Your task to perform on an android device: change keyboard looks Image 0: 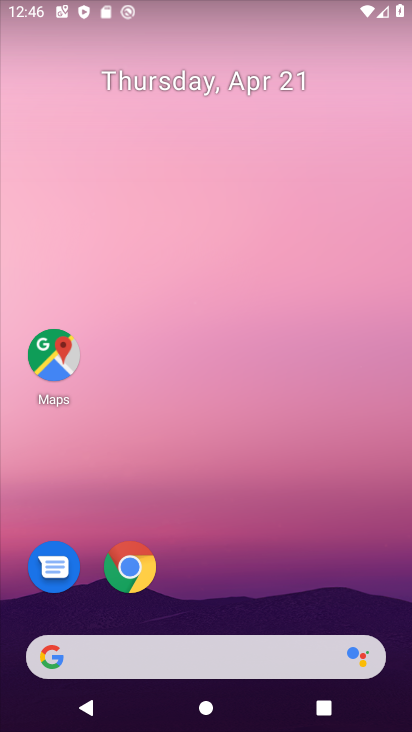
Step 0: drag from (250, 580) to (214, 142)
Your task to perform on an android device: change keyboard looks Image 1: 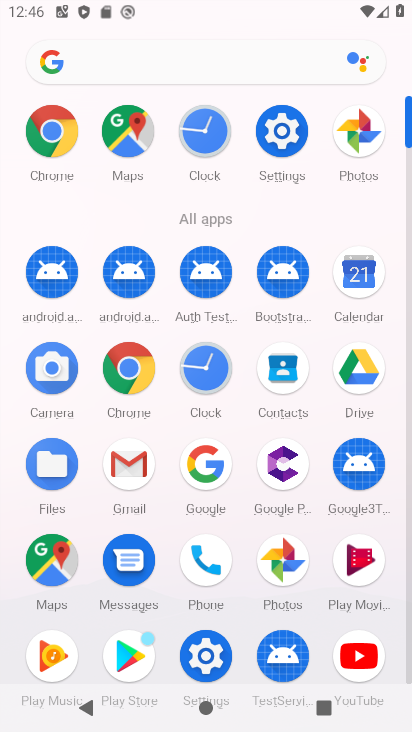
Step 1: click (281, 122)
Your task to perform on an android device: change keyboard looks Image 2: 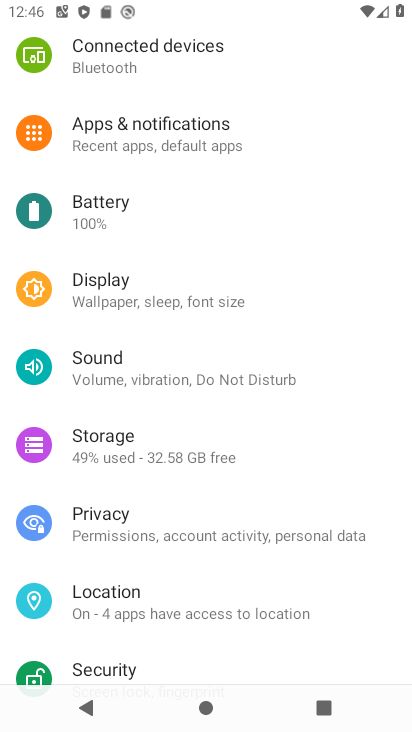
Step 2: drag from (217, 467) to (182, 102)
Your task to perform on an android device: change keyboard looks Image 3: 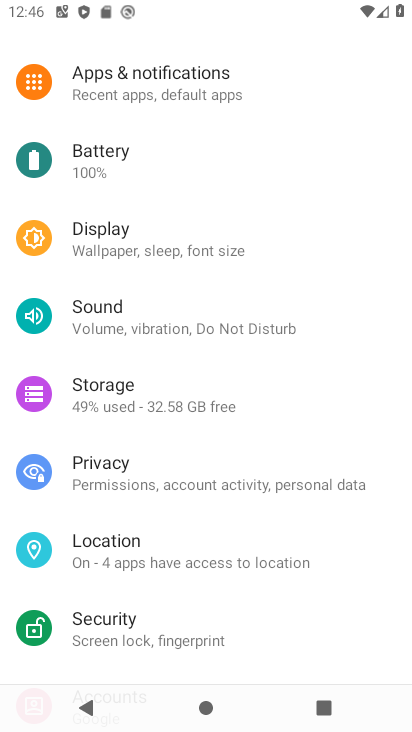
Step 3: drag from (182, 365) to (178, 115)
Your task to perform on an android device: change keyboard looks Image 4: 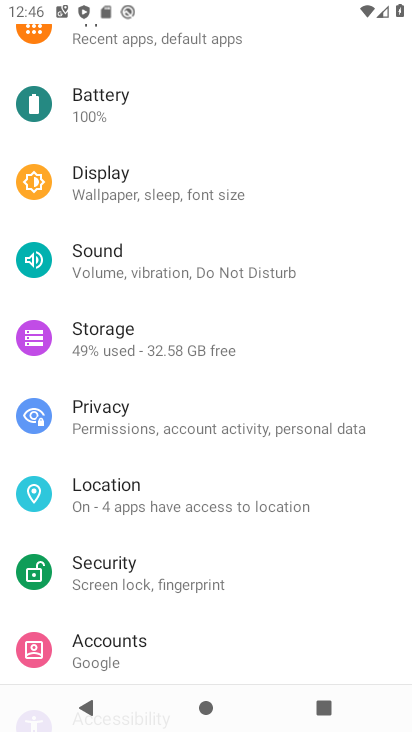
Step 4: drag from (204, 578) to (191, 154)
Your task to perform on an android device: change keyboard looks Image 5: 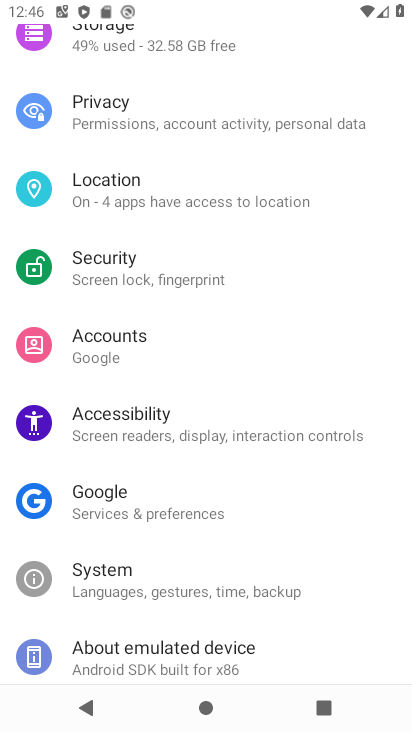
Step 5: drag from (175, 617) to (159, 287)
Your task to perform on an android device: change keyboard looks Image 6: 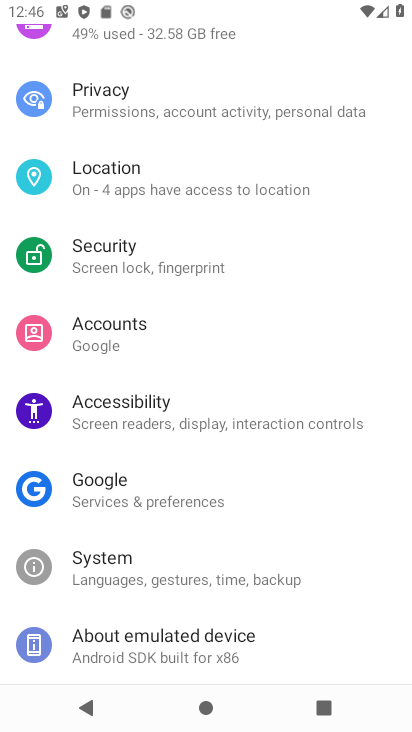
Step 6: click (133, 570)
Your task to perform on an android device: change keyboard looks Image 7: 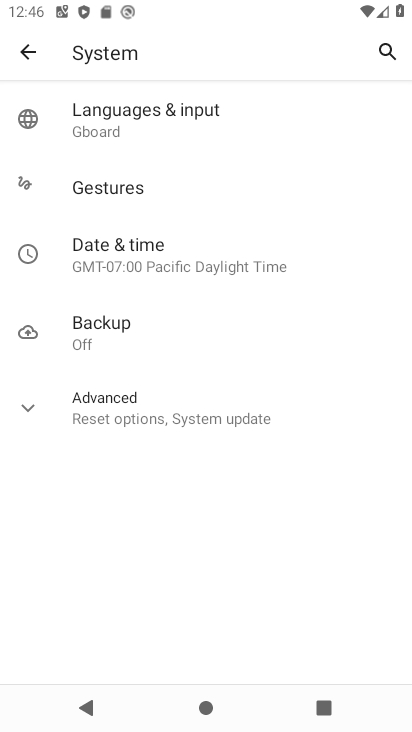
Step 7: click (159, 114)
Your task to perform on an android device: change keyboard looks Image 8: 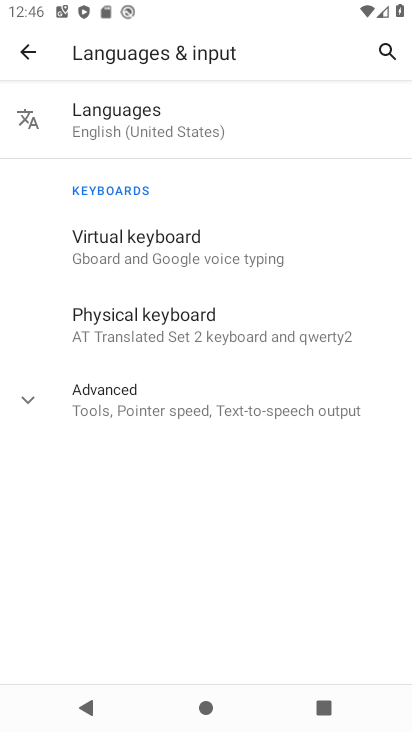
Step 8: click (113, 253)
Your task to perform on an android device: change keyboard looks Image 9: 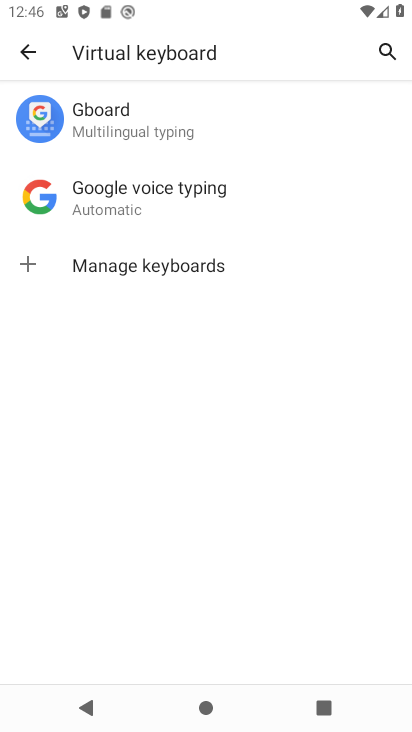
Step 9: click (85, 110)
Your task to perform on an android device: change keyboard looks Image 10: 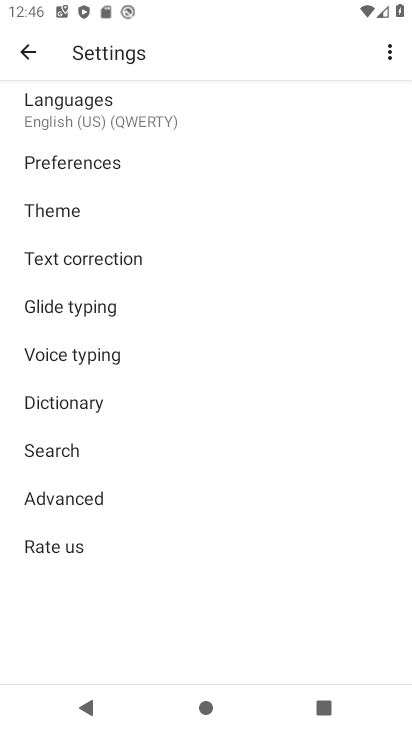
Step 10: click (81, 209)
Your task to perform on an android device: change keyboard looks Image 11: 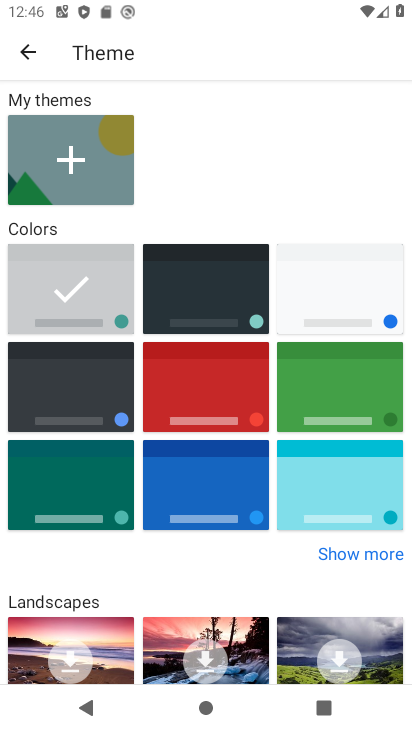
Step 11: click (261, 388)
Your task to perform on an android device: change keyboard looks Image 12: 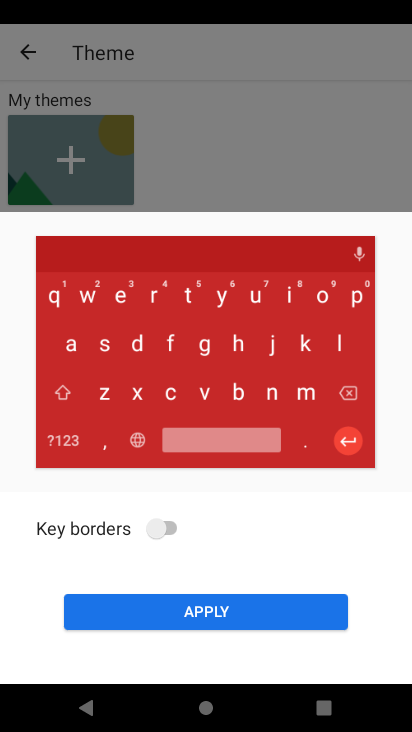
Step 12: click (188, 593)
Your task to perform on an android device: change keyboard looks Image 13: 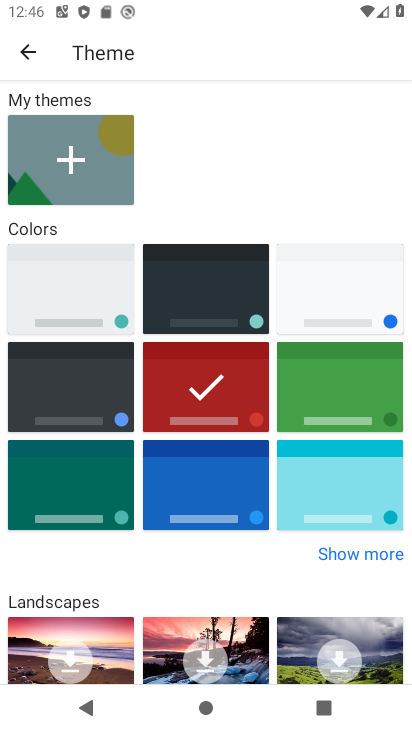
Step 13: task complete